Your task to perform on an android device: Open Chrome and go to the settings page Image 0: 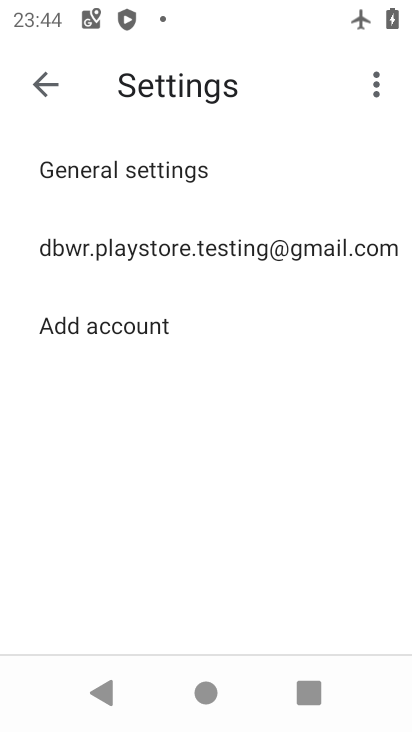
Step 0: press home button
Your task to perform on an android device: Open Chrome and go to the settings page Image 1: 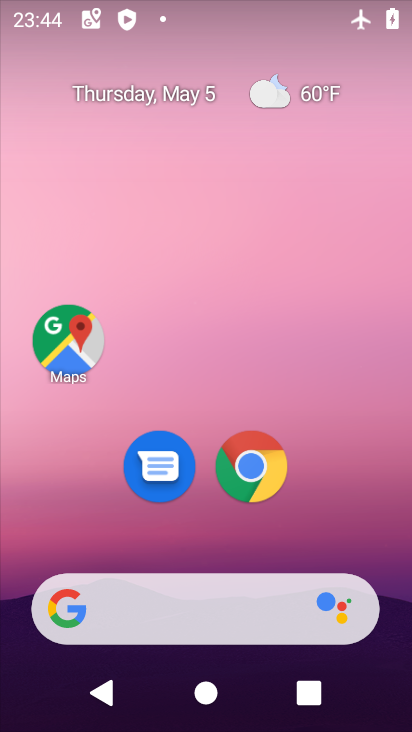
Step 1: click (250, 470)
Your task to perform on an android device: Open Chrome and go to the settings page Image 2: 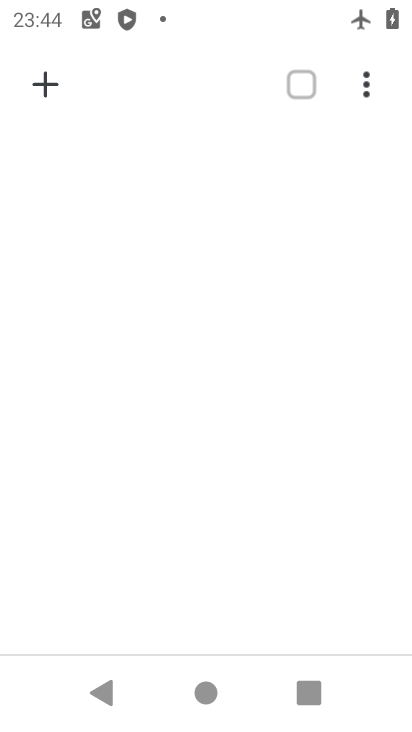
Step 2: click (372, 86)
Your task to perform on an android device: Open Chrome and go to the settings page Image 3: 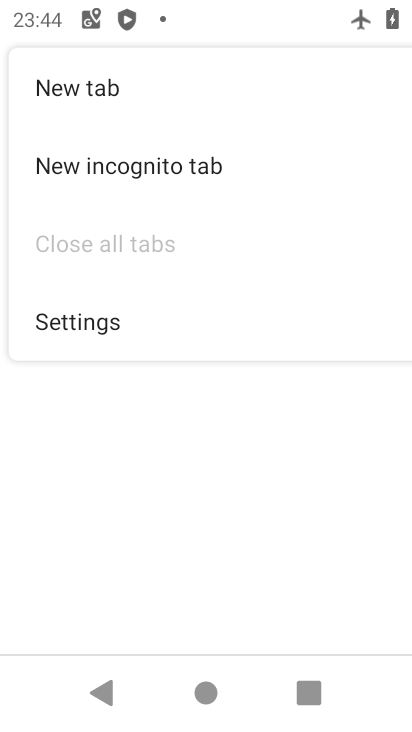
Step 3: click (56, 332)
Your task to perform on an android device: Open Chrome and go to the settings page Image 4: 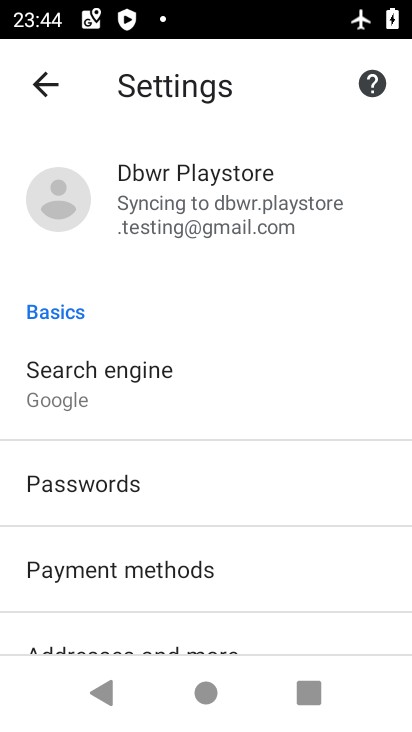
Step 4: task complete